Your task to perform on an android device: see creations saved in the google photos Image 0: 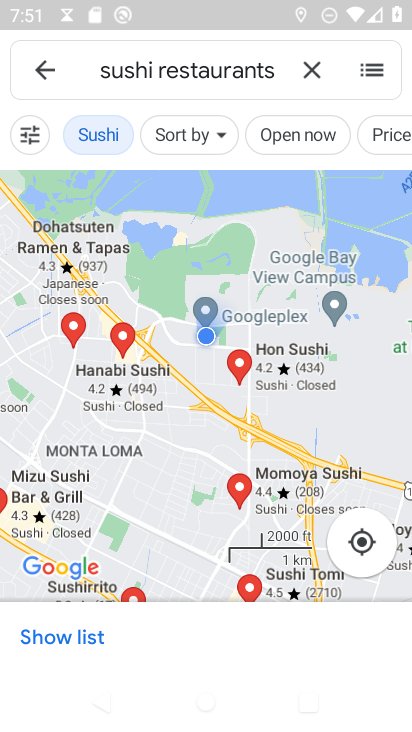
Step 0: press home button
Your task to perform on an android device: see creations saved in the google photos Image 1: 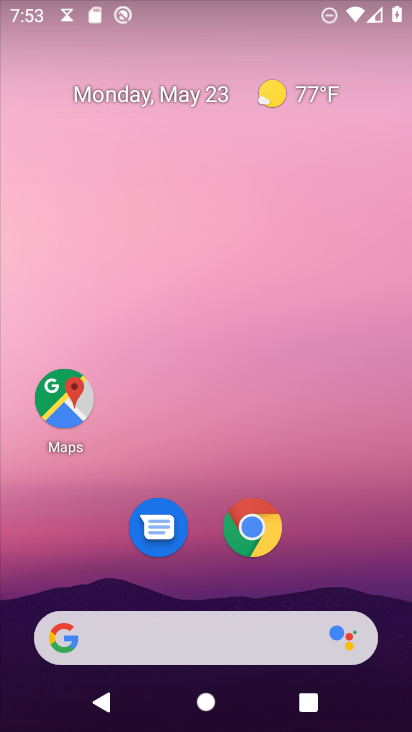
Step 1: drag from (252, 672) to (223, 173)
Your task to perform on an android device: see creations saved in the google photos Image 2: 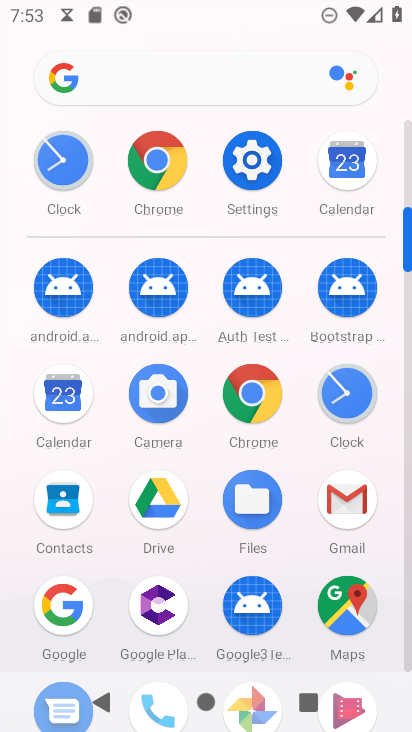
Step 2: drag from (297, 546) to (284, 376)
Your task to perform on an android device: see creations saved in the google photos Image 3: 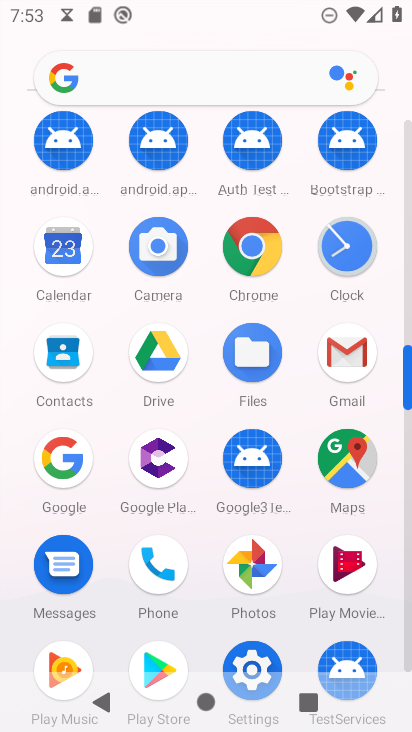
Step 3: click (255, 559)
Your task to perform on an android device: see creations saved in the google photos Image 4: 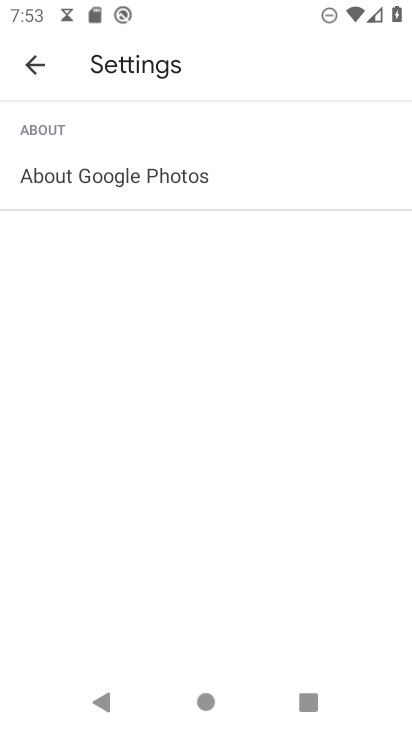
Step 4: click (26, 47)
Your task to perform on an android device: see creations saved in the google photos Image 5: 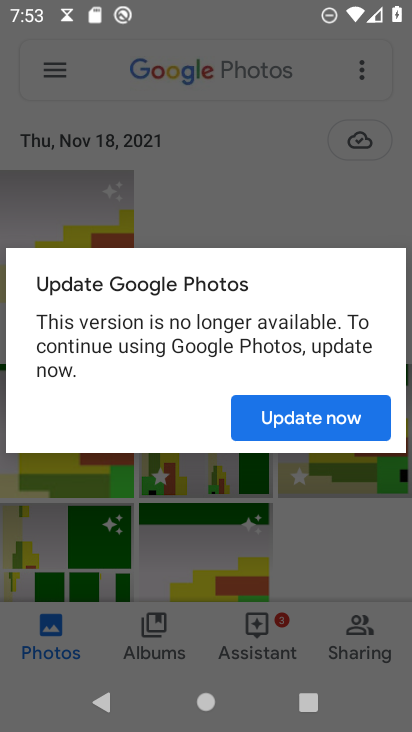
Step 5: click (314, 421)
Your task to perform on an android device: see creations saved in the google photos Image 6: 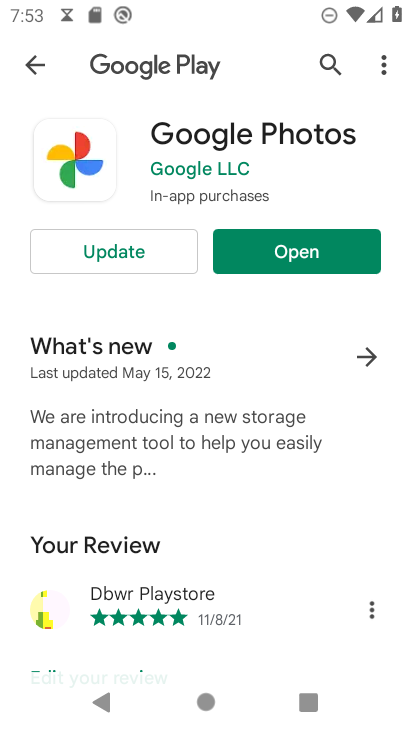
Step 6: click (276, 253)
Your task to perform on an android device: see creations saved in the google photos Image 7: 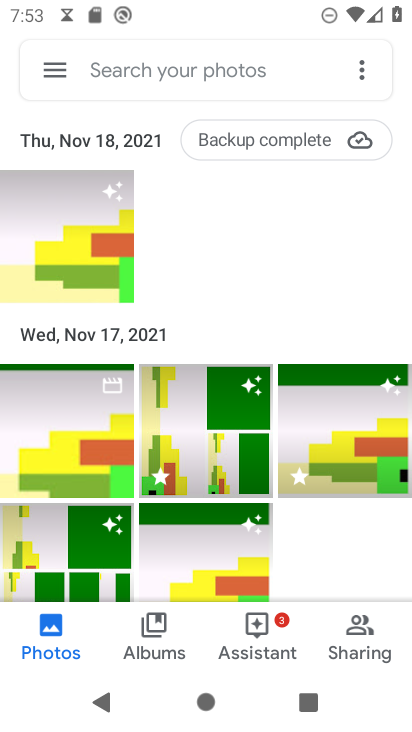
Step 7: click (259, 500)
Your task to perform on an android device: see creations saved in the google photos Image 8: 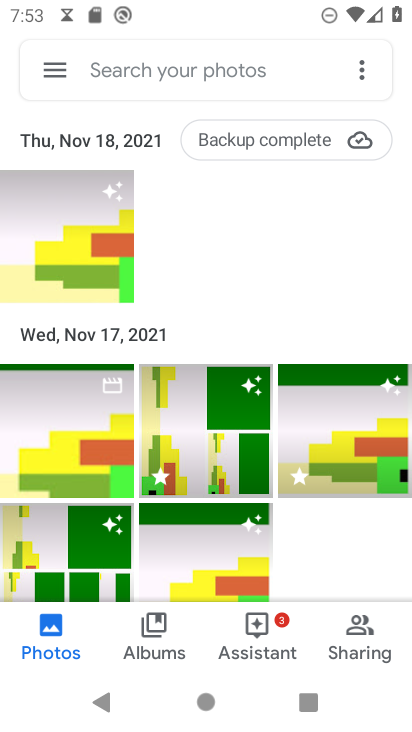
Step 8: click (248, 493)
Your task to perform on an android device: see creations saved in the google photos Image 9: 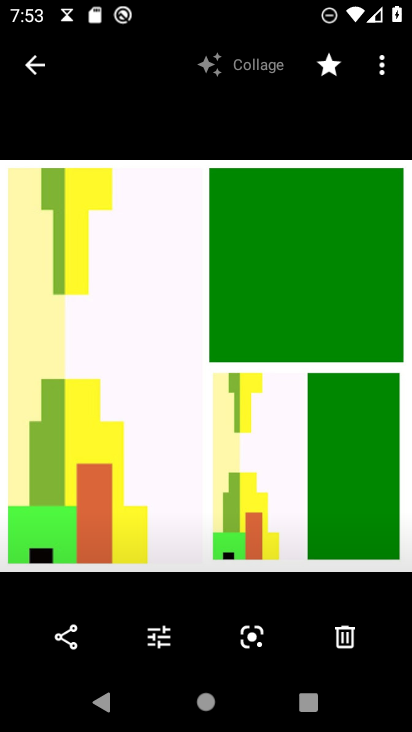
Step 9: click (382, 73)
Your task to perform on an android device: see creations saved in the google photos Image 10: 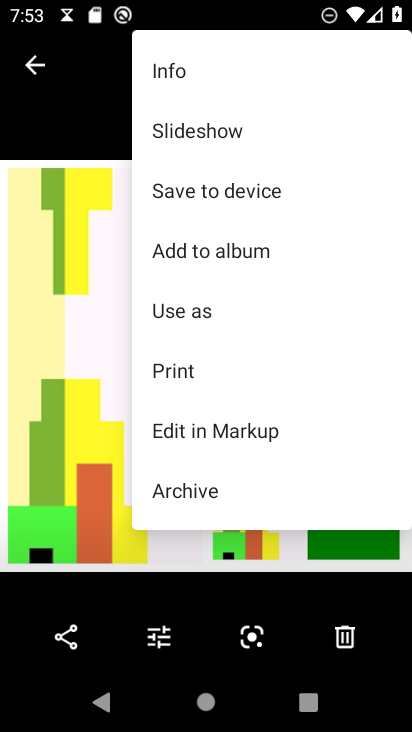
Step 10: click (220, 184)
Your task to perform on an android device: see creations saved in the google photos Image 11: 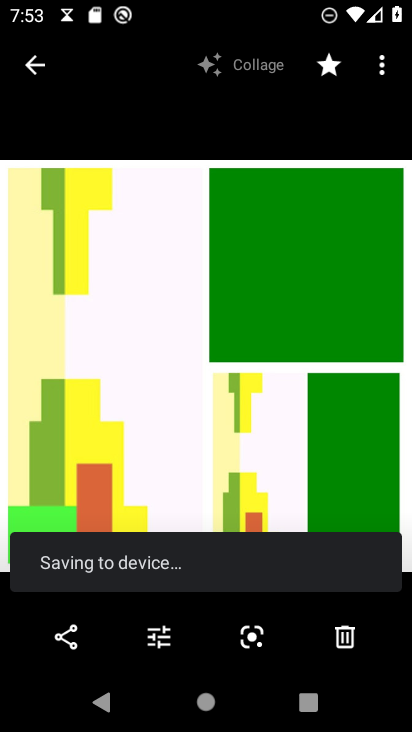
Step 11: task complete